Your task to perform on an android device: Check the weather Image 0: 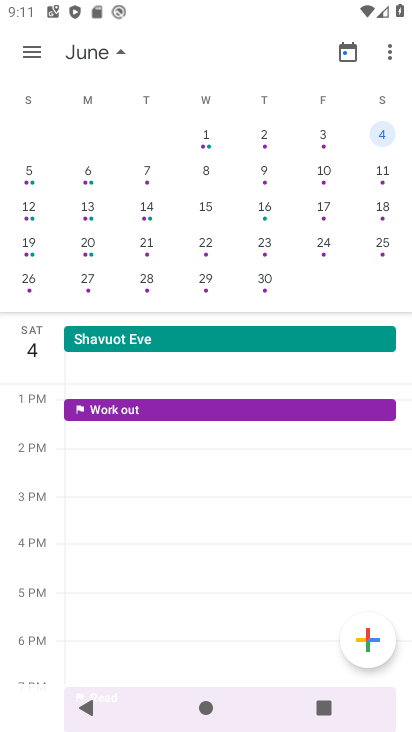
Step 0: press home button
Your task to perform on an android device: Check the weather Image 1: 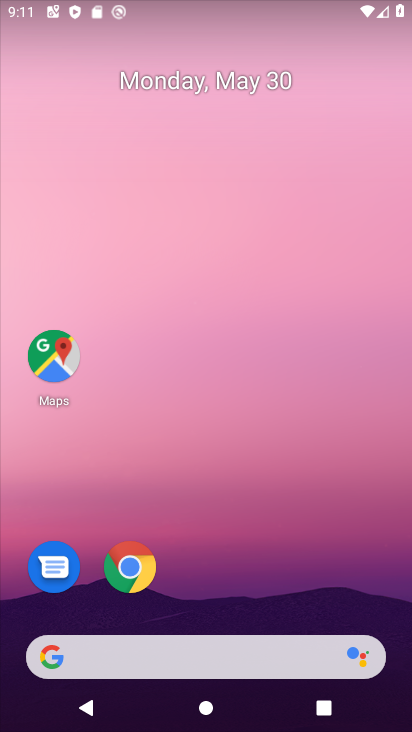
Step 1: click (195, 667)
Your task to perform on an android device: Check the weather Image 2: 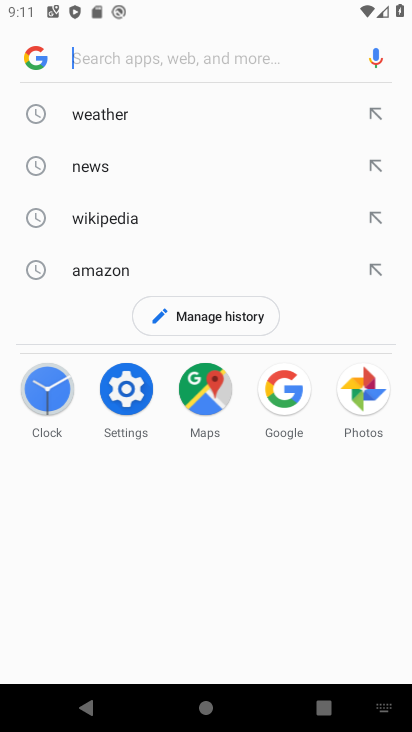
Step 2: click (123, 122)
Your task to perform on an android device: Check the weather Image 3: 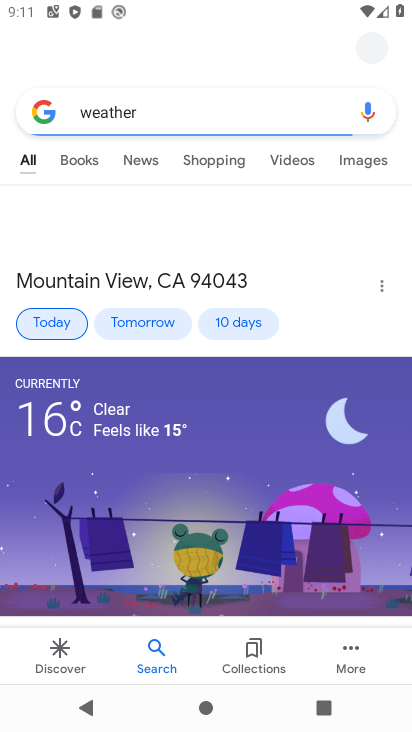
Step 3: task complete